Your task to perform on an android device: Go to network settings Image 0: 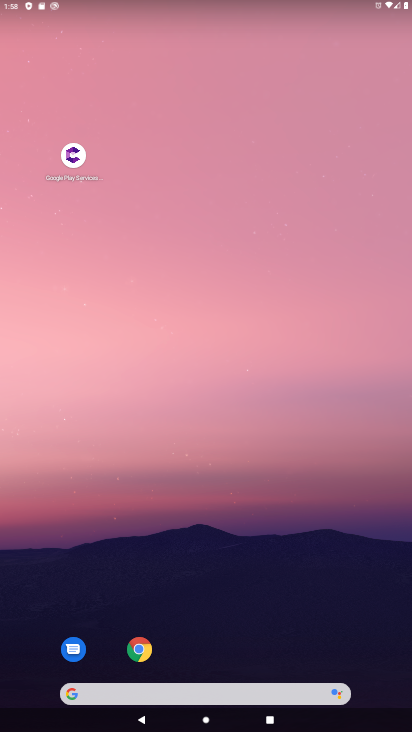
Step 0: drag from (187, 4) to (266, 424)
Your task to perform on an android device: Go to network settings Image 1: 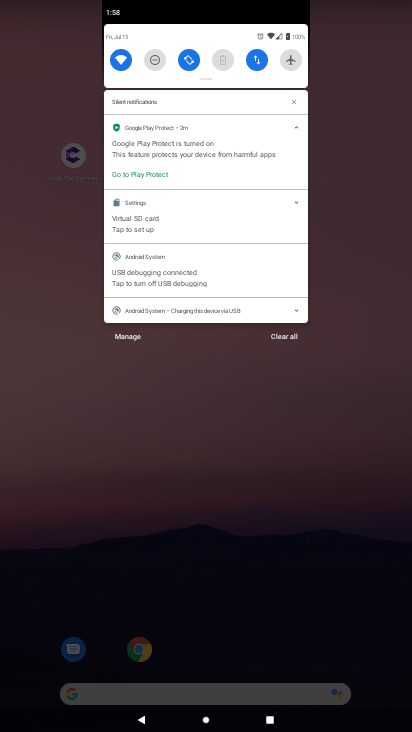
Step 1: click (252, 70)
Your task to perform on an android device: Go to network settings Image 2: 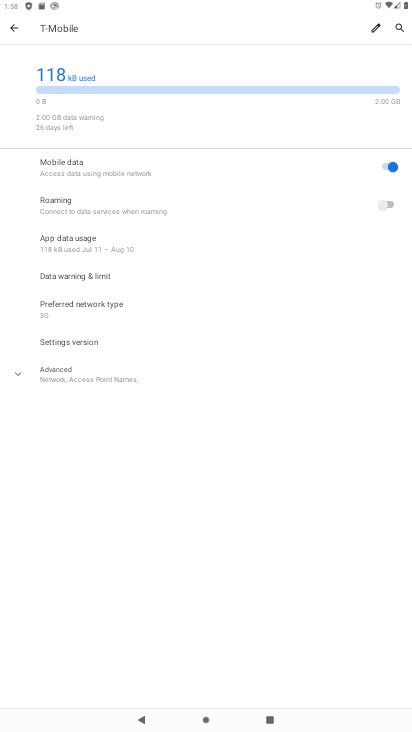
Step 2: task complete